Your task to perform on an android device: Go to settings Image 0: 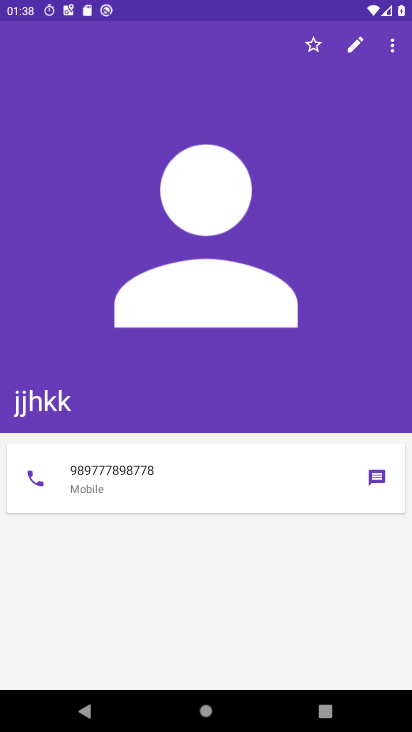
Step 0: press home button
Your task to perform on an android device: Go to settings Image 1: 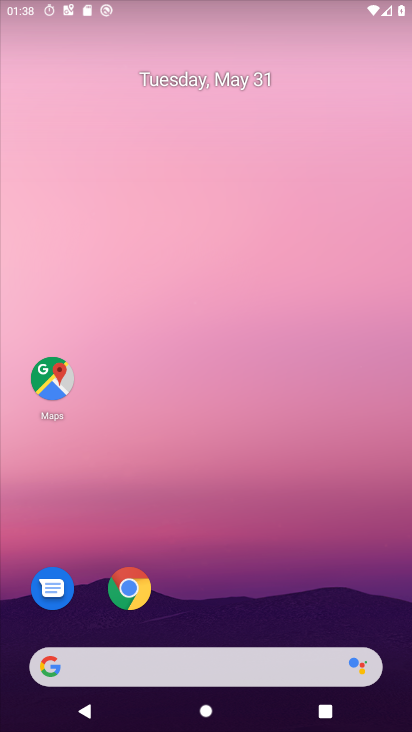
Step 1: drag from (212, 664) to (259, 0)
Your task to perform on an android device: Go to settings Image 2: 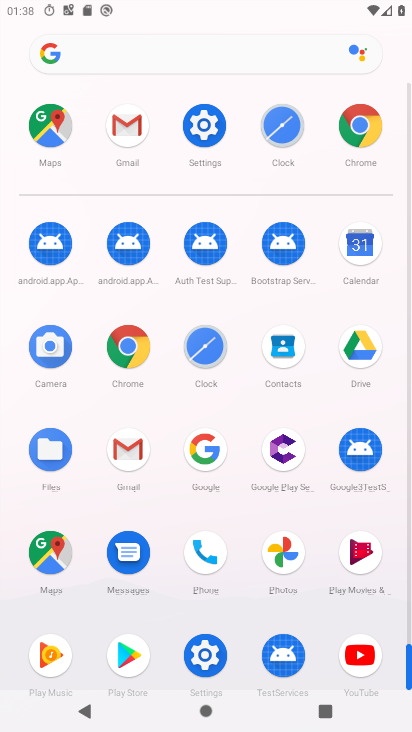
Step 2: click (219, 140)
Your task to perform on an android device: Go to settings Image 3: 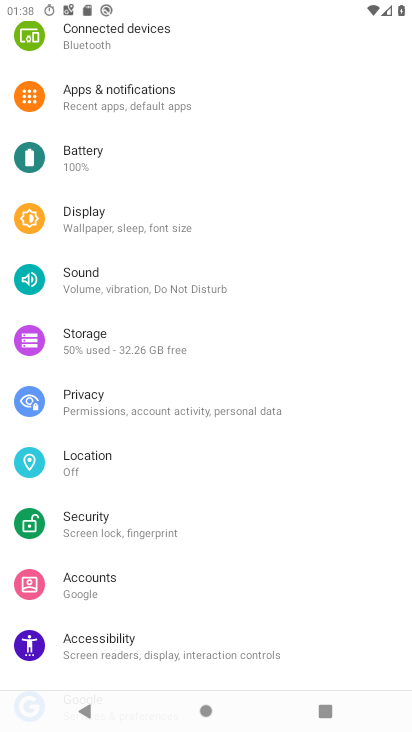
Step 3: task complete